Your task to perform on an android device: Go to wifi settings Image 0: 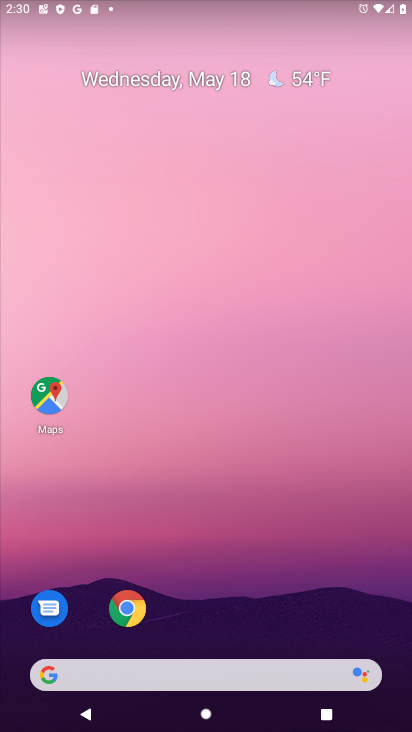
Step 0: drag from (316, 587) to (307, 3)
Your task to perform on an android device: Go to wifi settings Image 1: 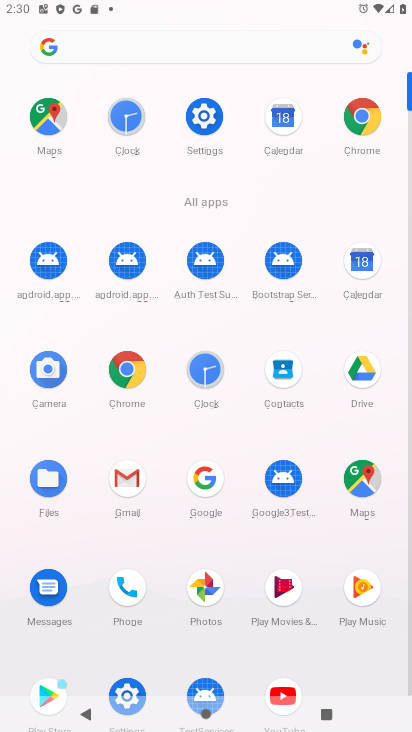
Step 1: click (208, 129)
Your task to perform on an android device: Go to wifi settings Image 2: 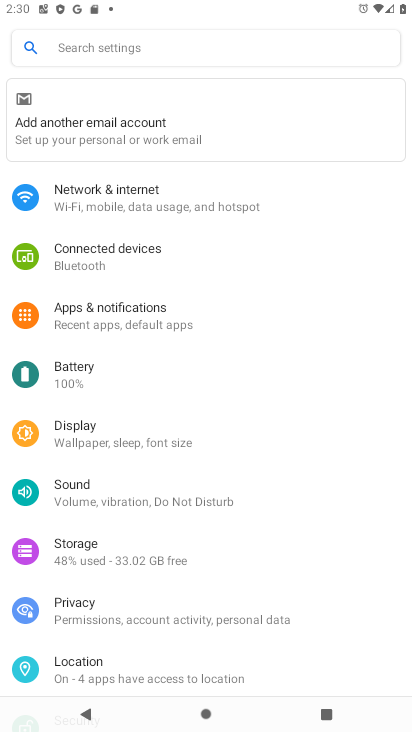
Step 2: click (125, 202)
Your task to perform on an android device: Go to wifi settings Image 3: 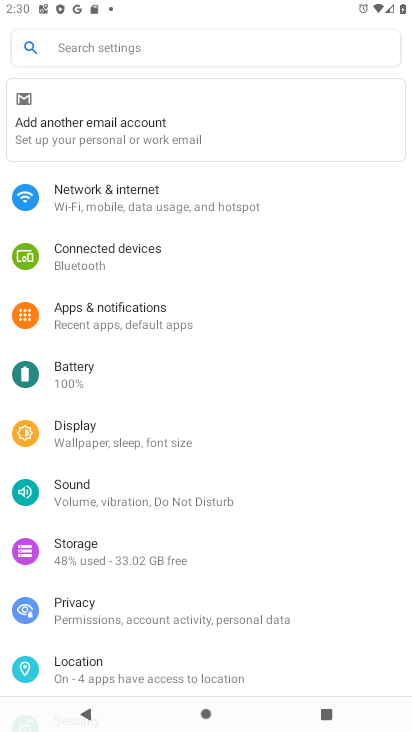
Step 3: click (144, 198)
Your task to perform on an android device: Go to wifi settings Image 4: 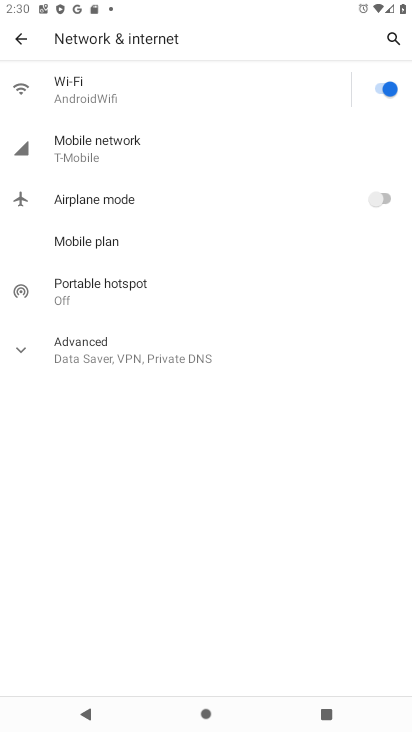
Step 4: click (57, 97)
Your task to perform on an android device: Go to wifi settings Image 5: 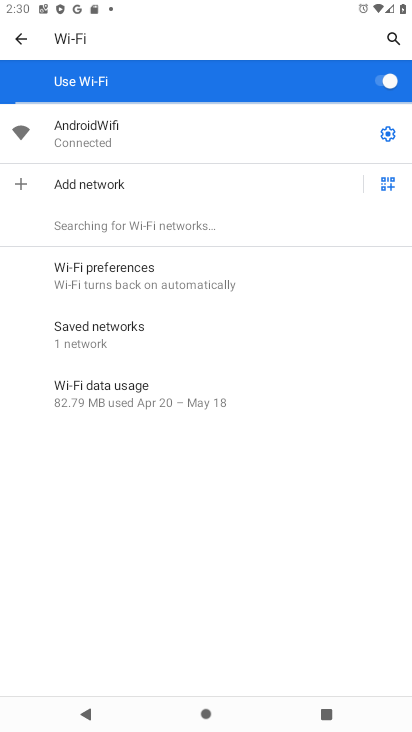
Step 5: task complete